Your task to perform on an android device: change the upload size in google photos Image 0: 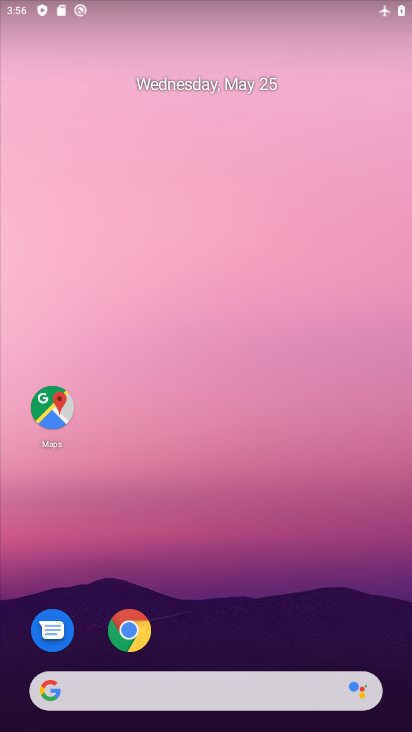
Step 0: drag from (218, 580) to (242, 67)
Your task to perform on an android device: change the upload size in google photos Image 1: 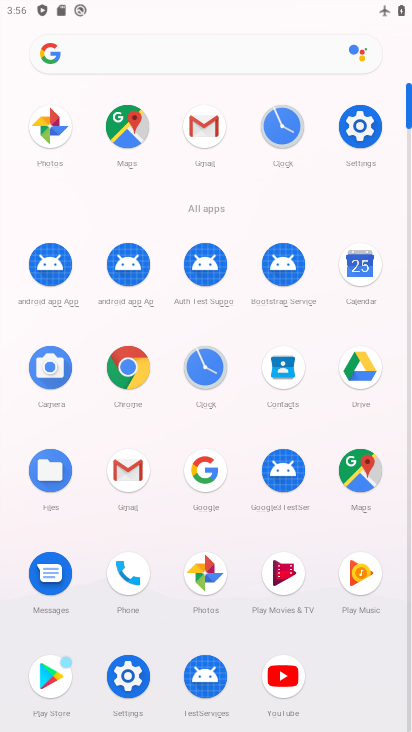
Step 1: click (198, 562)
Your task to perform on an android device: change the upload size in google photos Image 2: 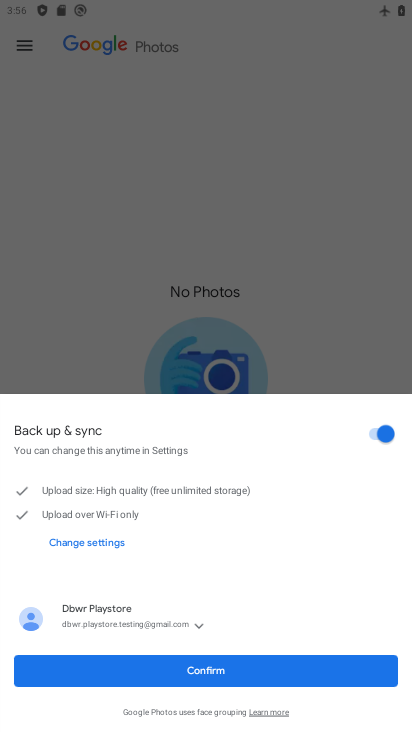
Step 2: click (209, 678)
Your task to perform on an android device: change the upload size in google photos Image 3: 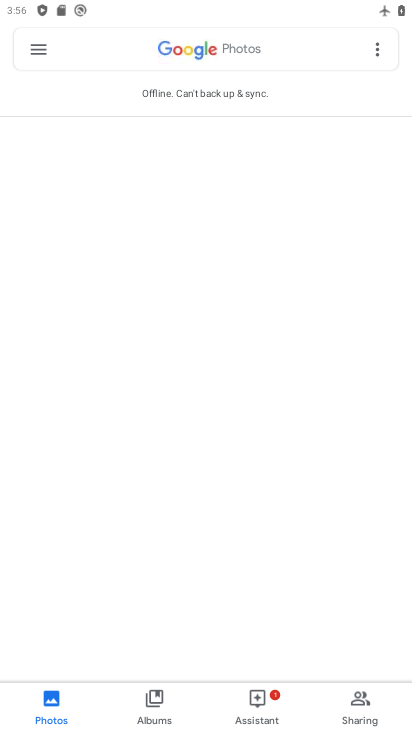
Step 3: click (35, 41)
Your task to perform on an android device: change the upload size in google photos Image 4: 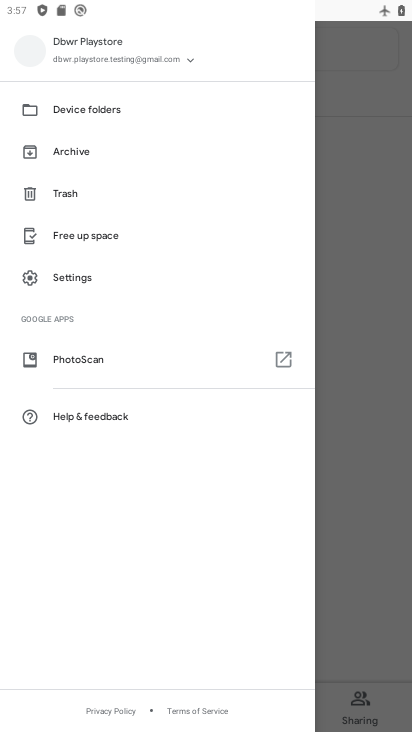
Step 4: click (73, 285)
Your task to perform on an android device: change the upload size in google photos Image 5: 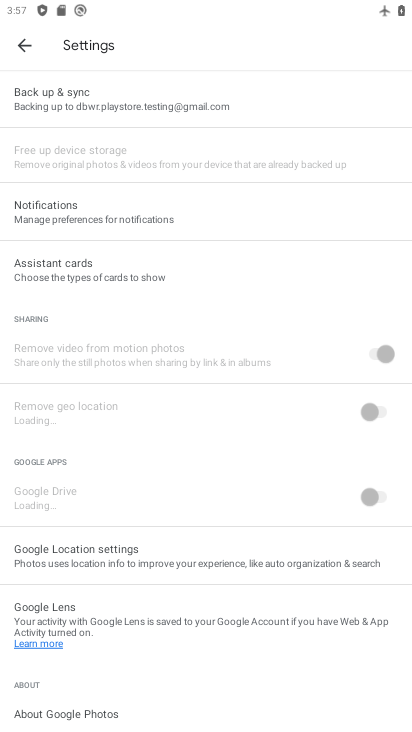
Step 5: click (67, 114)
Your task to perform on an android device: change the upload size in google photos Image 6: 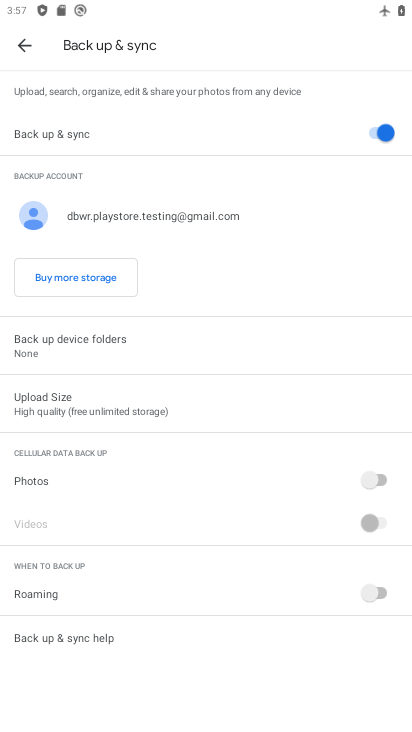
Step 6: click (97, 386)
Your task to perform on an android device: change the upload size in google photos Image 7: 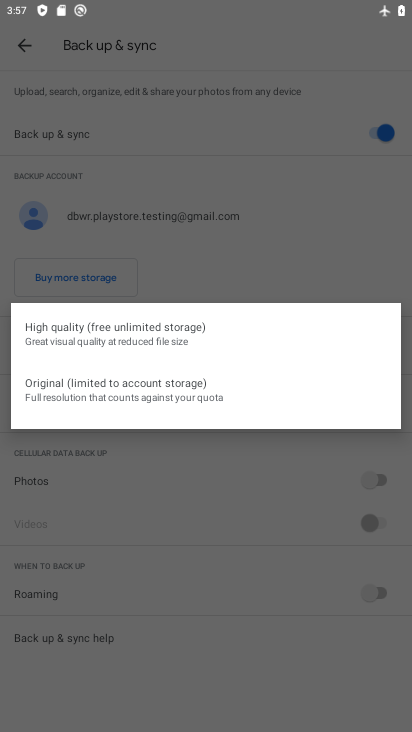
Step 7: click (102, 386)
Your task to perform on an android device: change the upload size in google photos Image 8: 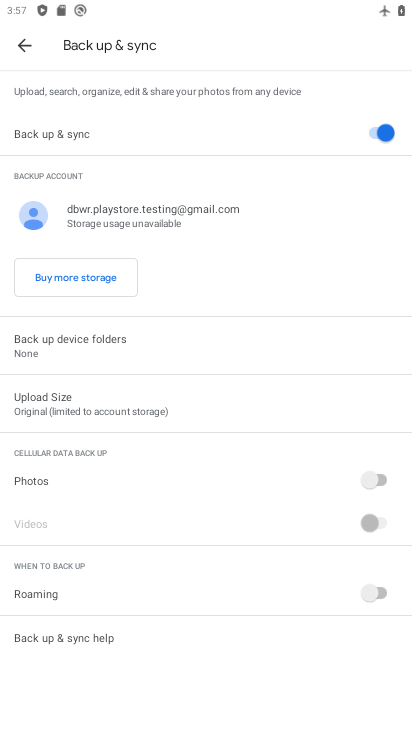
Step 8: task complete